Your task to perform on an android device: uninstall "Google Pay: Save, Pay, Manage" Image 0: 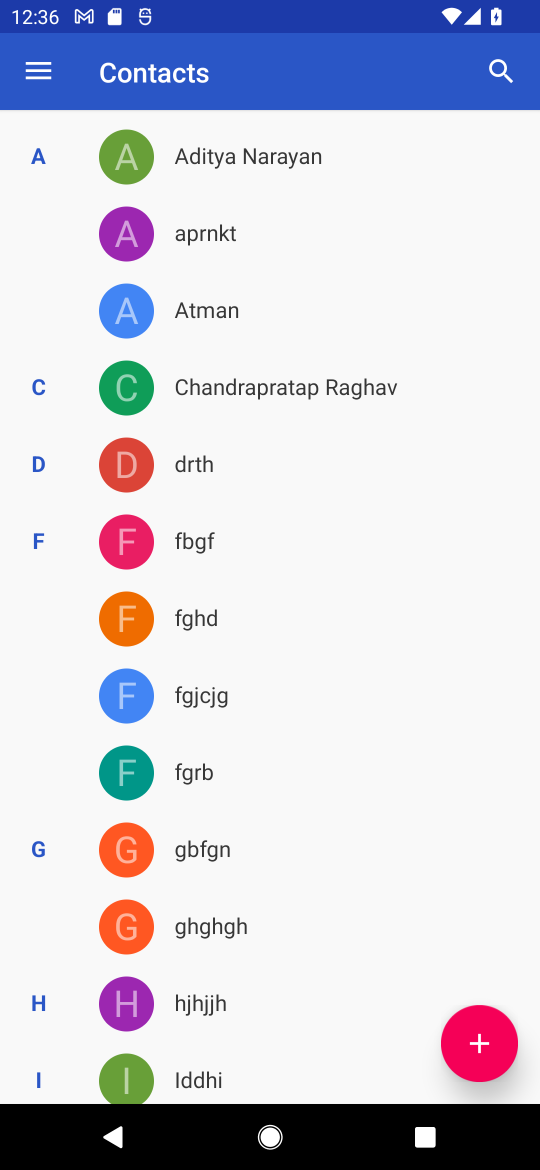
Step 0: press home button
Your task to perform on an android device: uninstall "Google Pay: Save, Pay, Manage" Image 1: 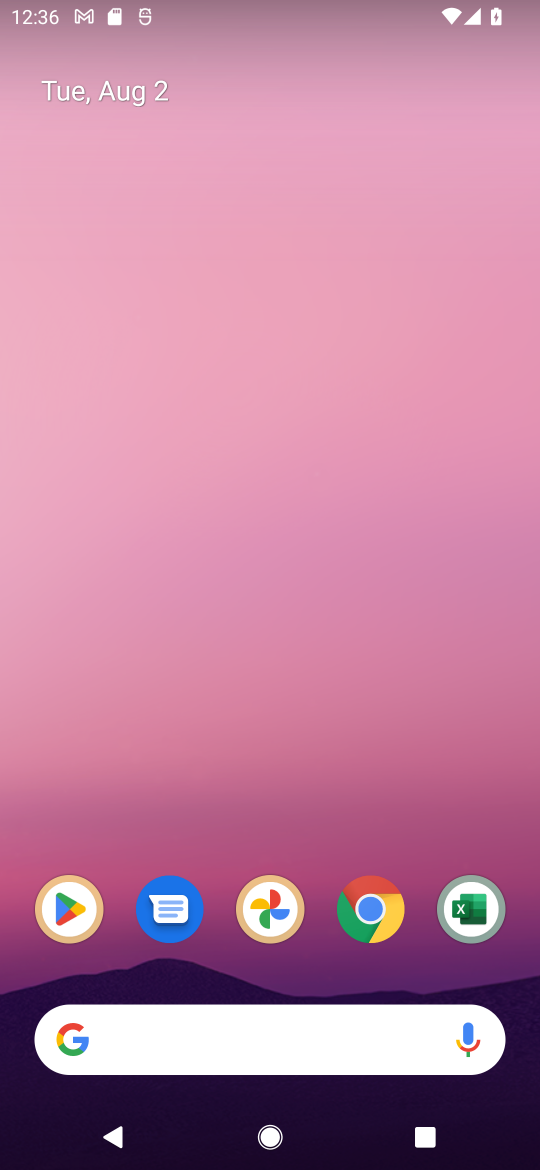
Step 1: click (72, 899)
Your task to perform on an android device: uninstall "Google Pay: Save, Pay, Manage" Image 2: 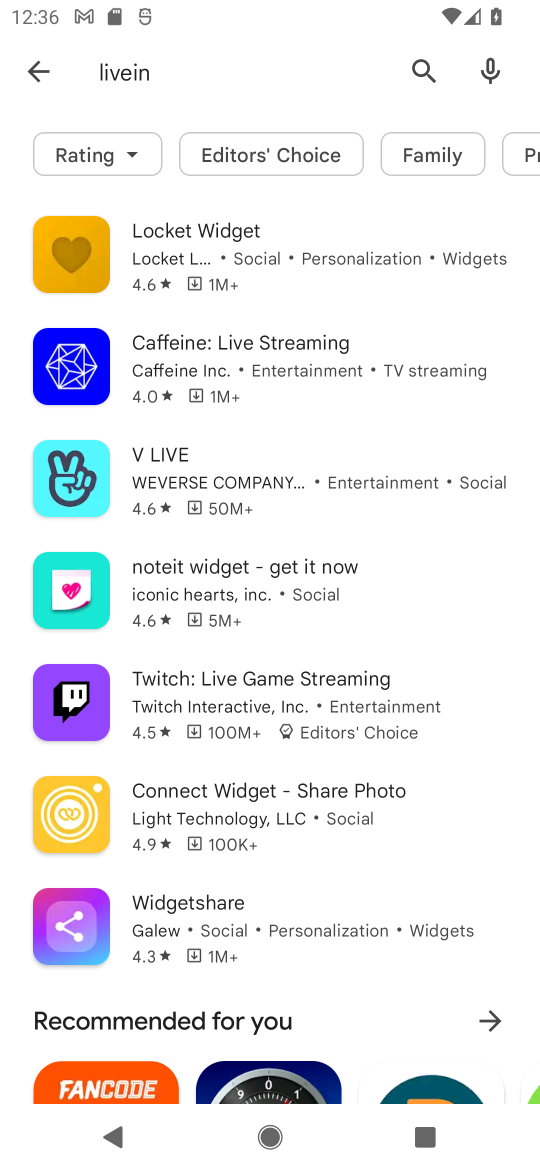
Step 2: click (48, 72)
Your task to perform on an android device: uninstall "Google Pay: Save, Pay, Manage" Image 3: 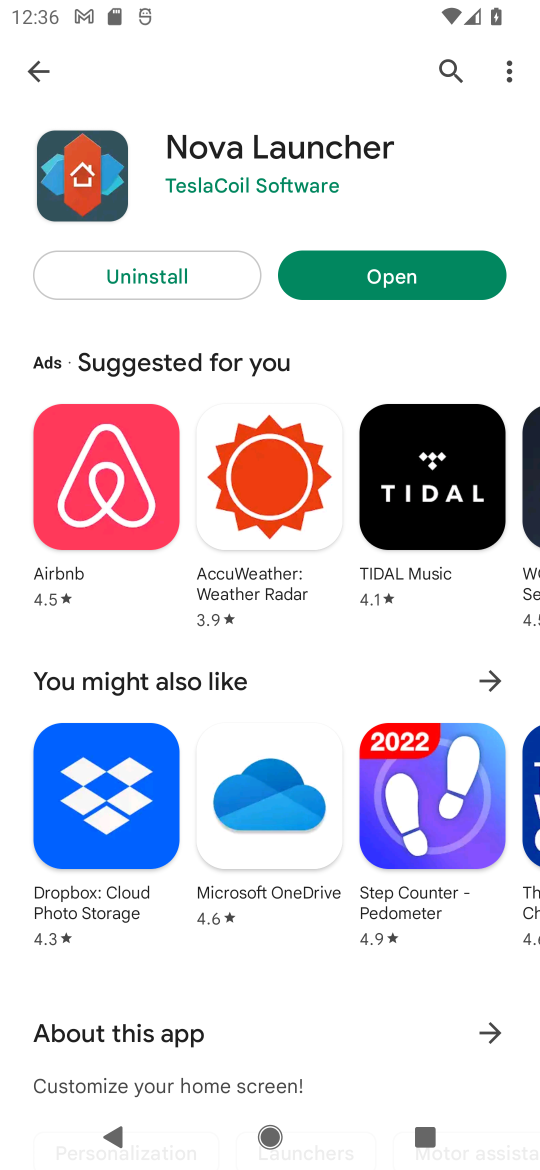
Step 3: click (443, 62)
Your task to perform on an android device: uninstall "Google Pay: Save, Pay, Manage" Image 4: 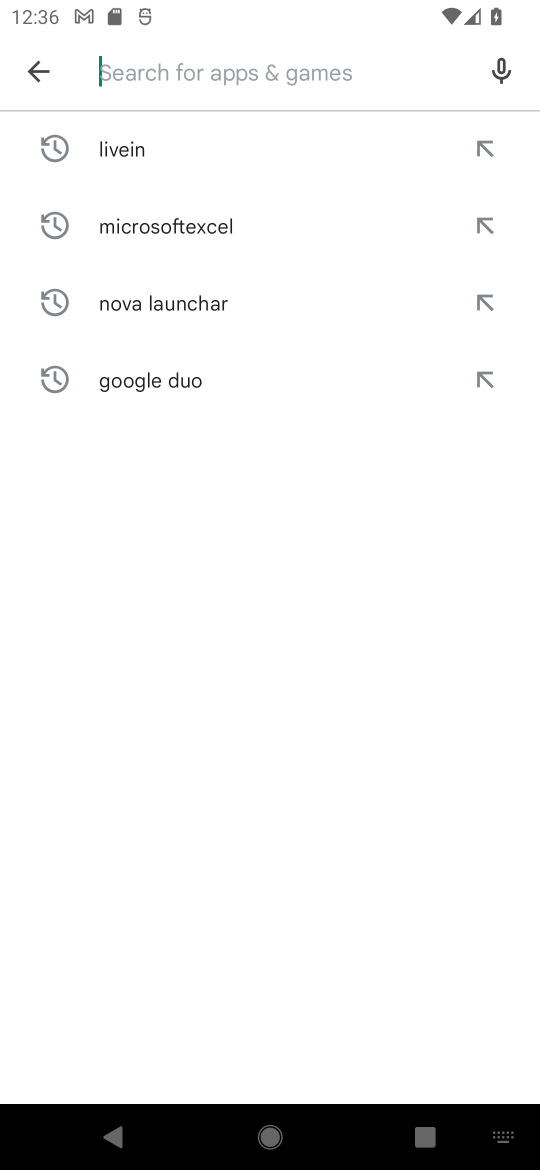
Step 4: type "Google Pay: Save, Pay, Manage"
Your task to perform on an android device: uninstall "Google Pay: Save, Pay, Manage" Image 5: 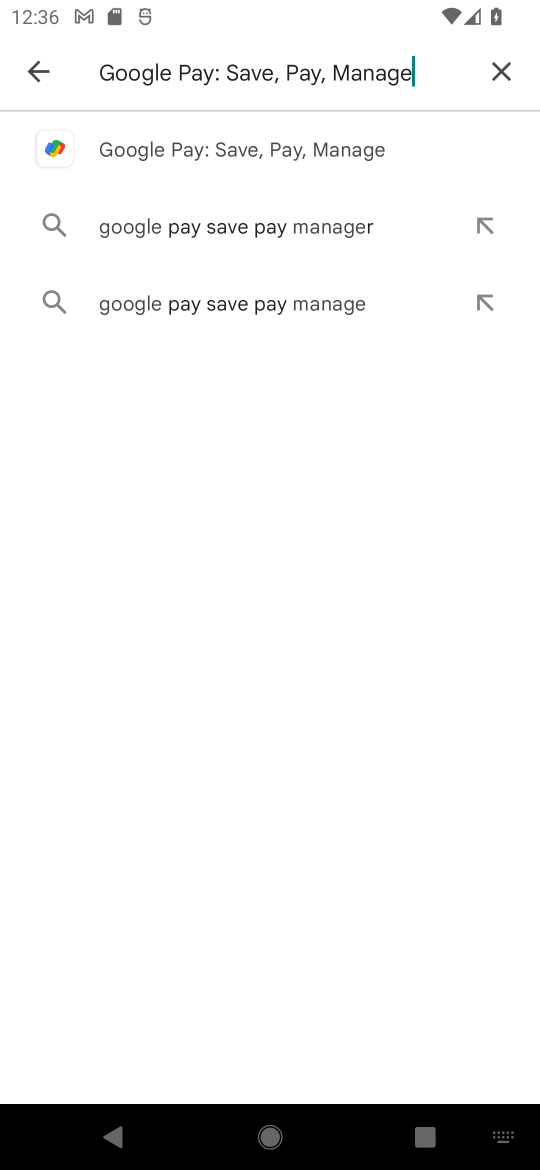
Step 5: click (300, 147)
Your task to perform on an android device: uninstall "Google Pay: Save, Pay, Manage" Image 6: 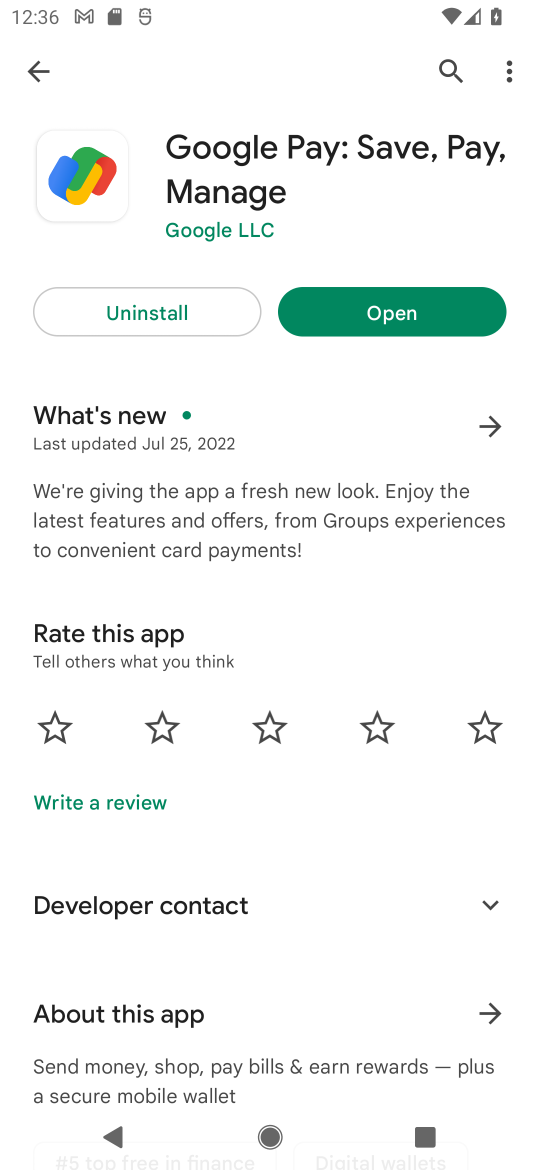
Step 6: click (125, 317)
Your task to perform on an android device: uninstall "Google Pay: Save, Pay, Manage" Image 7: 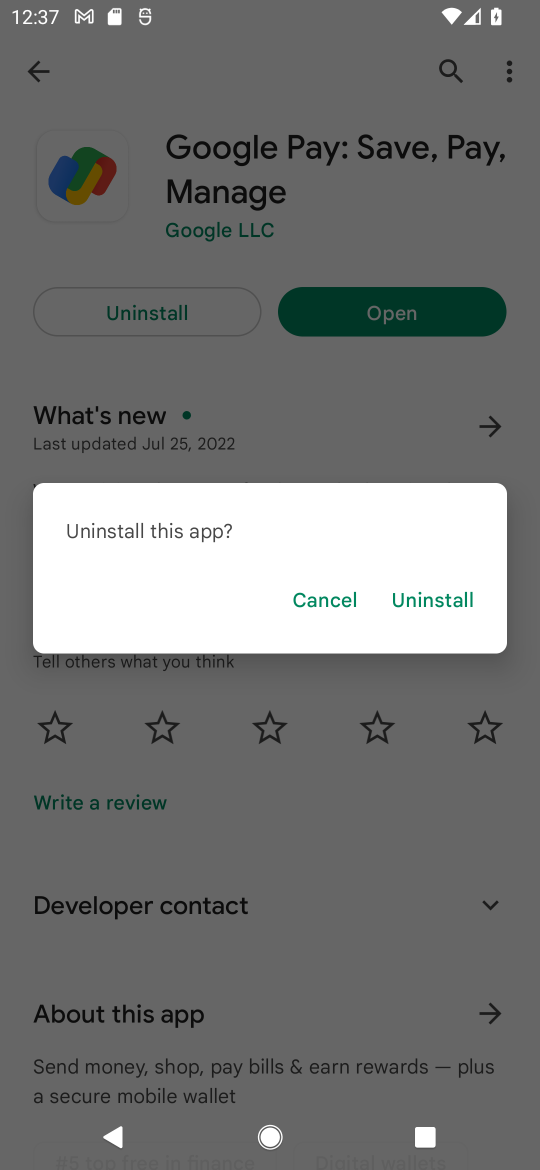
Step 7: click (433, 599)
Your task to perform on an android device: uninstall "Google Pay: Save, Pay, Manage" Image 8: 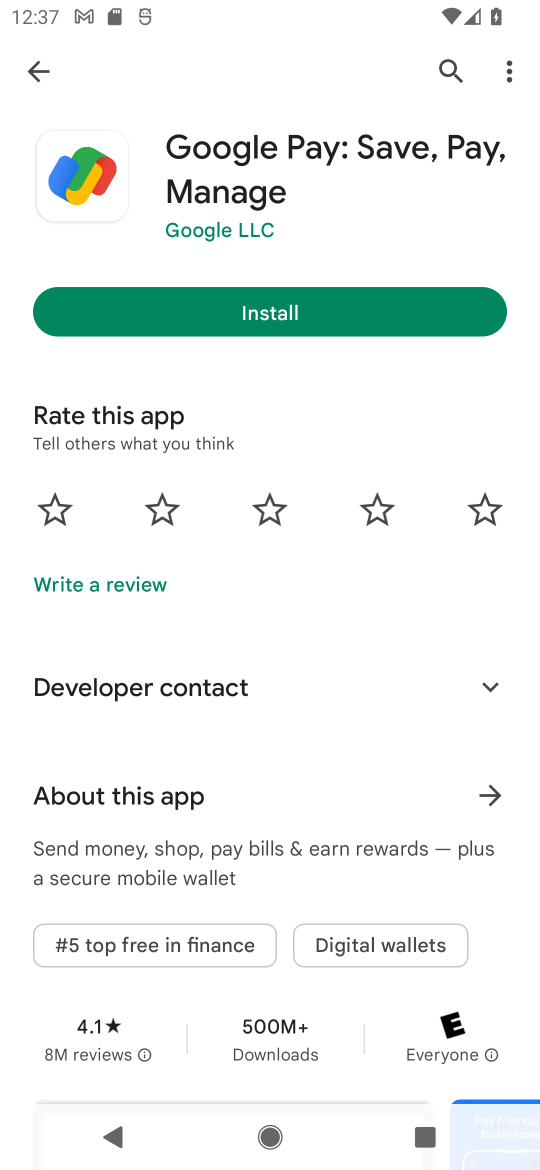
Step 8: task complete